Your task to perform on an android device: Open display settings Image 0: 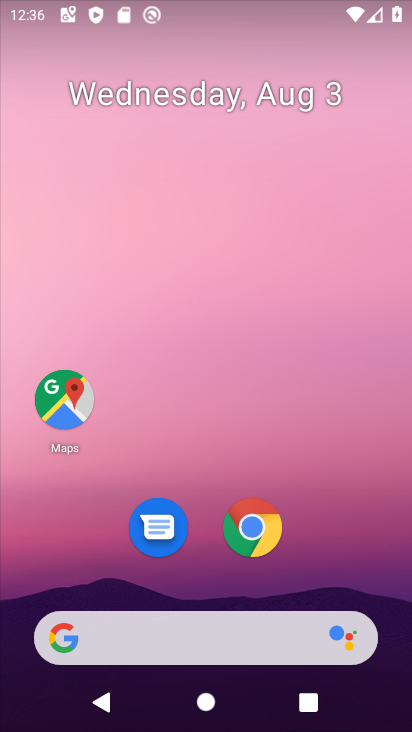
Step 0: drag from (190, 589) to (213, 279)
Your task to perform on an android device: Open display settings Image 1: 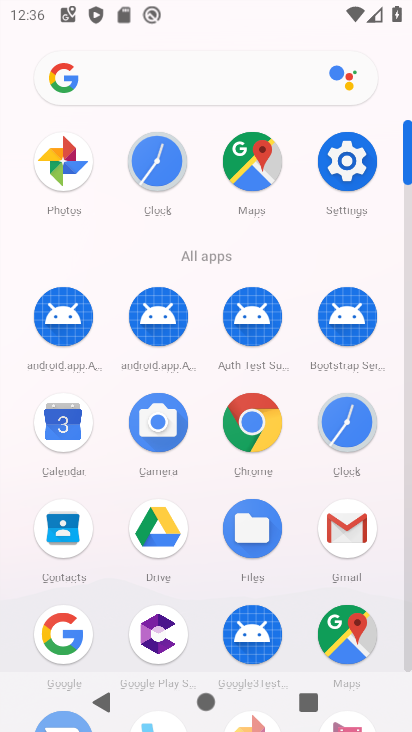
Step 1: click (351, 182)
Your task to perform on an android device: Open display settings Image 2: 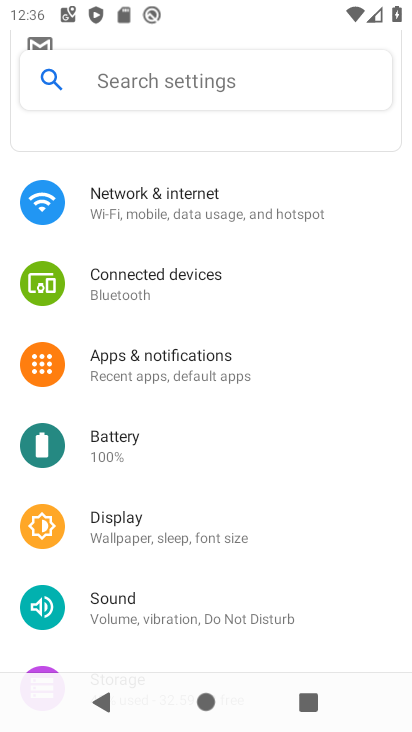
Step 2: click (163, 532)
Your task to perform on an android device: Open display settings Image 3: 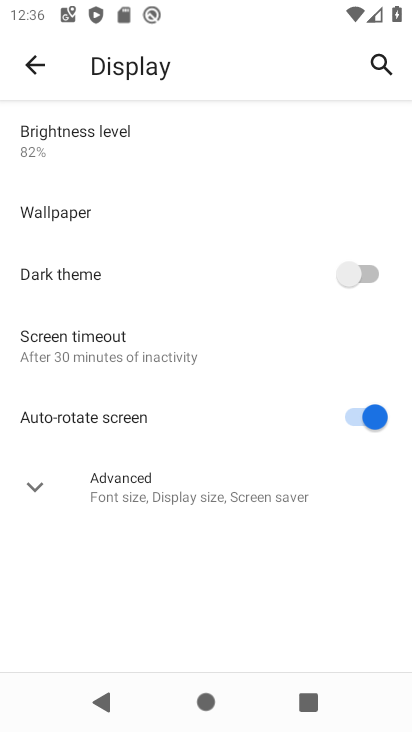
Step 3: task complete